Your task to perform on an android device: visit the assistant section in the google photos Image 0: 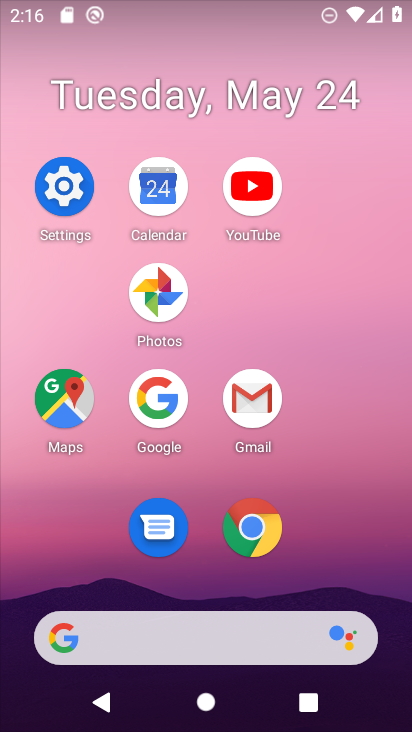
Step 0: click (144, 293)
Your task to perform on an android device: visit the assistant section in the google photos Image 1: 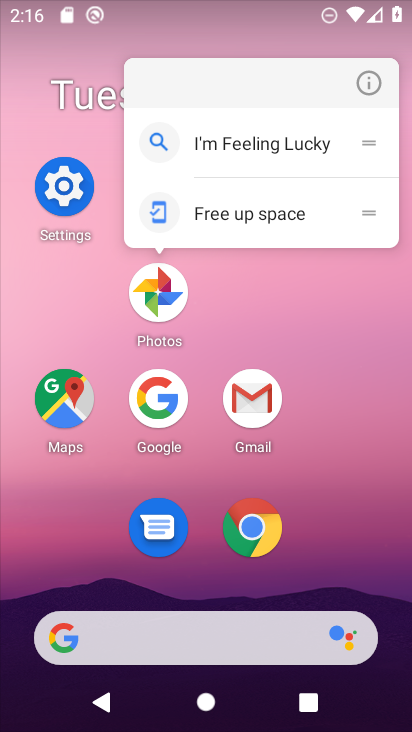
Step 1: click (146, 282)
Your task to perform on an android device: visit the assistant section in the google photos Image 2: 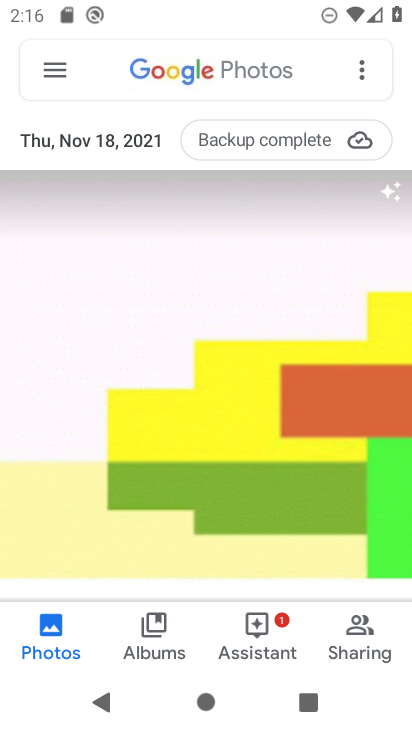
Step 2: click (252, 628)
Your task to perform on an android device: visit the assistant section in the google photos Image 3: 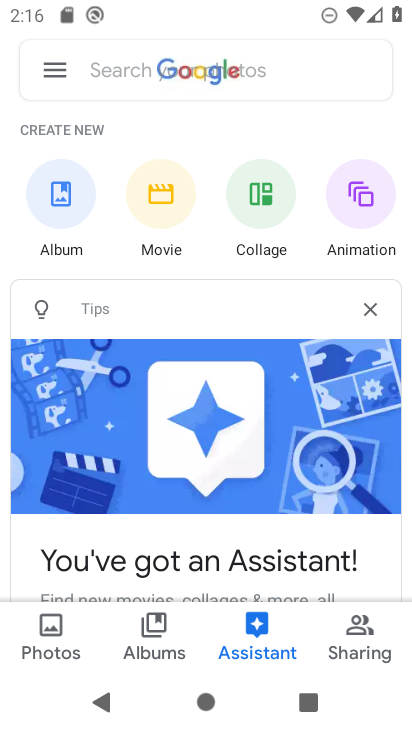
Step 3: task complete